Your task to perform on an android device: open app "Viber Messenger" Image 0: 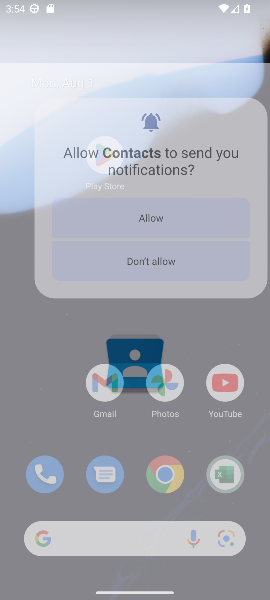
Step 0: press home button
Your task to perform on an android device: open app "Viber Messenger" Image 1: 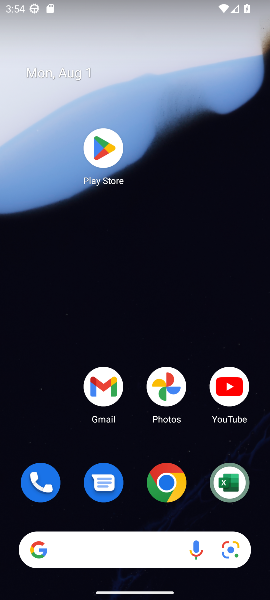
Step 1: click (102, 150)
Your task to perform on an android device: open app "Viber Messenger" Image 2: 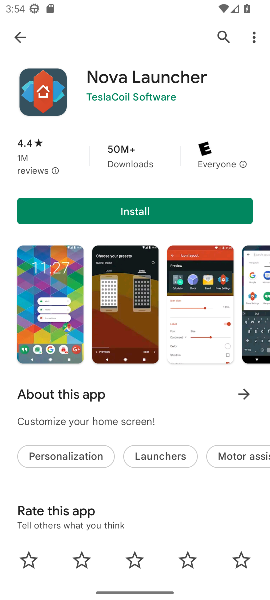
Step 2: click (219, 29)
Your task to perform on an android device: open app "Viber Messenger" Image 3: 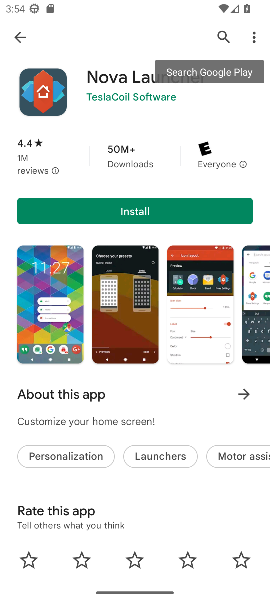
Step 3: click (225, 36)
Your task to perform on an android device: open app "Viber Messenger" Image 4: 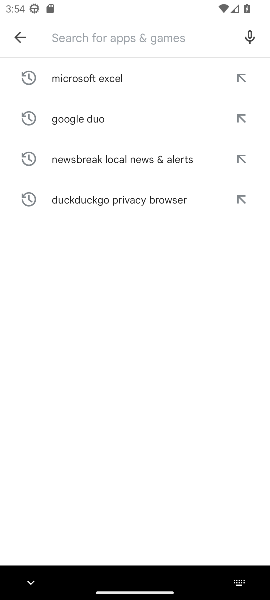
Step 4: type "Viber Messenger"
Your task to perform on an android device: open app "Viber Messenger" Image 5: 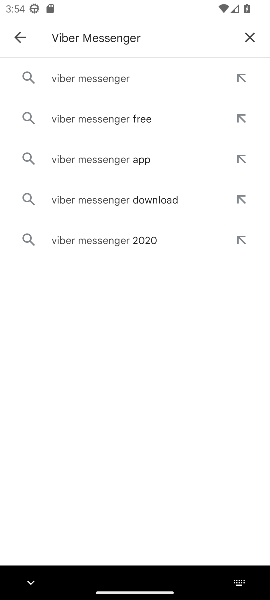
Step 5: click (98, 75)
Your task to perform on an android device: open app "Viber Messenger" Image 6: 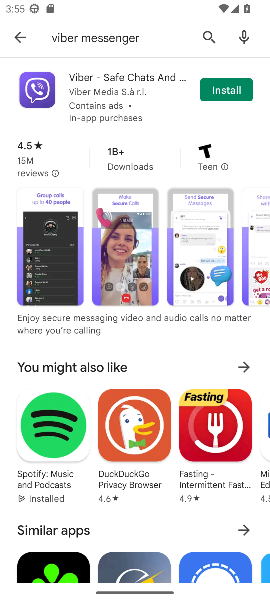
Step 6: task complete